Your task to perform on an android device: Is it going to rain this weekend? Image 0: 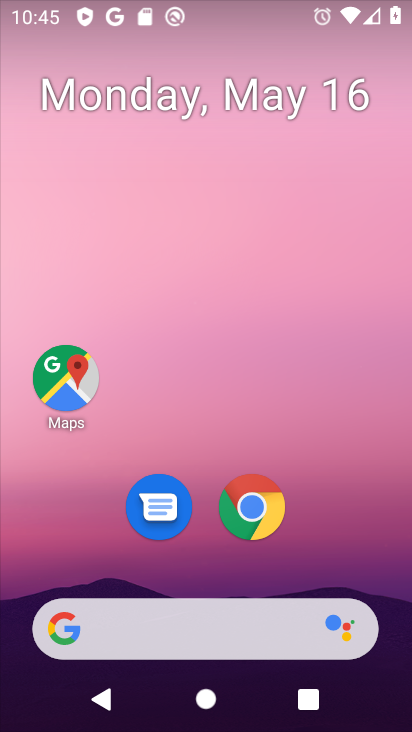
Step 0: drag from (307, 558) to (259, 104)
Your task to perform on an android device: Is it going to rain this weekend? Image 1: 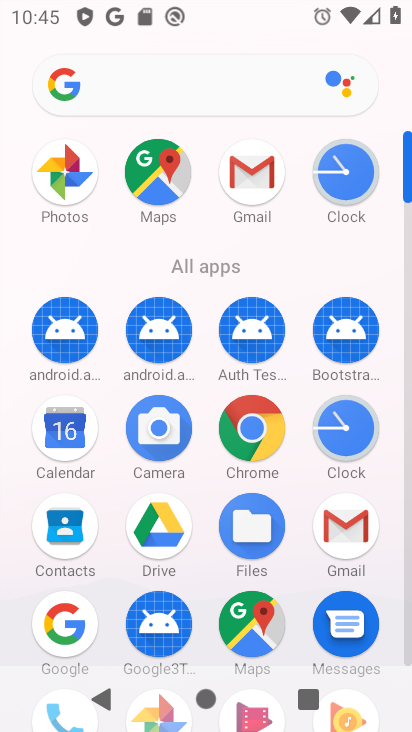
Step 1: drag from (200, 578) to (144, 243)
Your task to perform on an android device: Is it going to rain this weekend? Image 2: 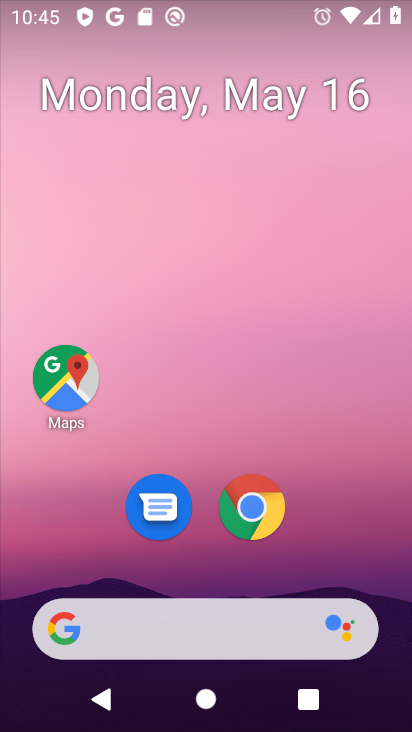
Step 2: drag from (288, 416) to (121, 7)
Your task to perform on an android device: Is it going to rain this weekend? Image 3: 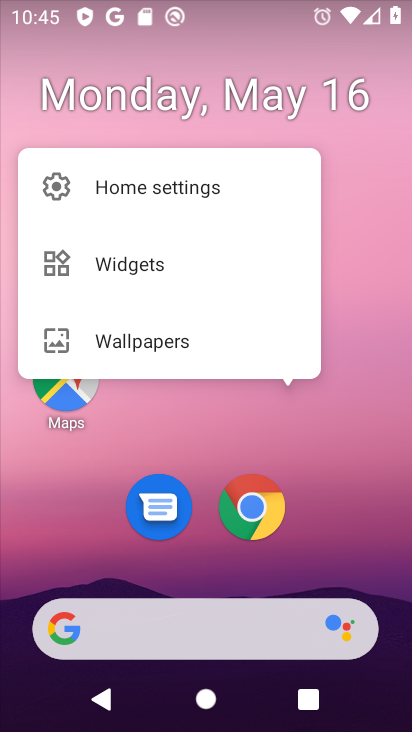
Step 3: click (183, 603)
Your task to perform on an android device: Is it going to rain this weekend? Image 4: 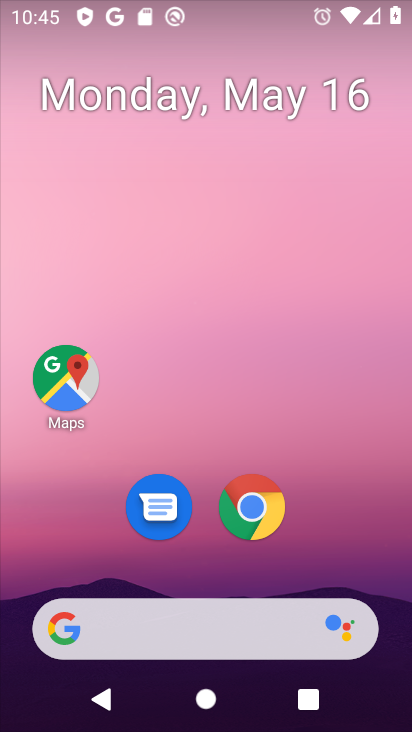
Step 4: click (156, 646)
Your task to perform on an android device: Is it going to rain this weekend? Image 5: 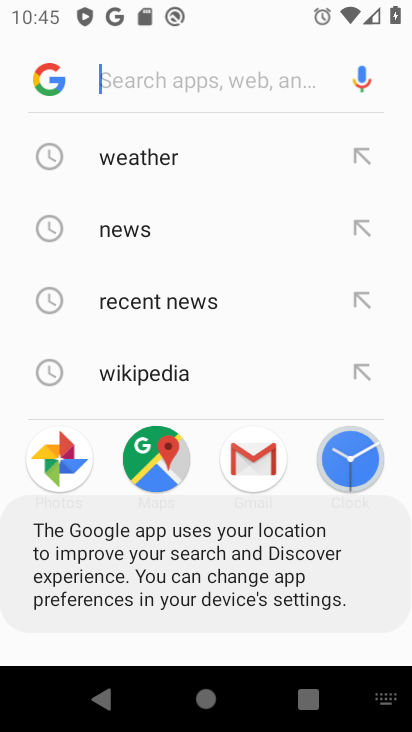
Step 5: click (186, 155)
Your task to perform on an android device: Is it going to rain this weekend? Image 6: 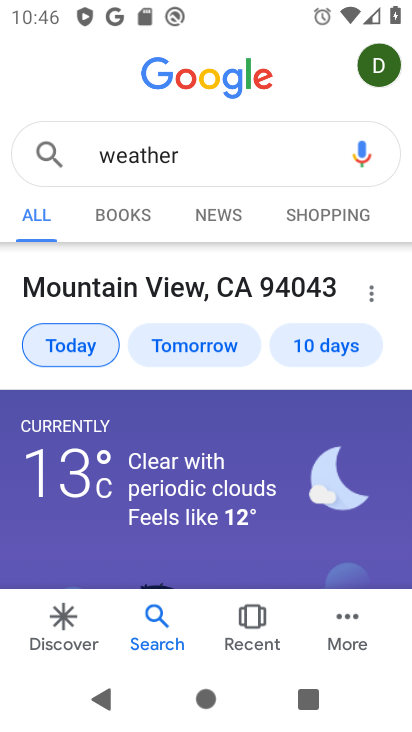
Step 6: click (309, 341)
Your task to perform on an android device: Is it going to rain this weekend? Image 7: 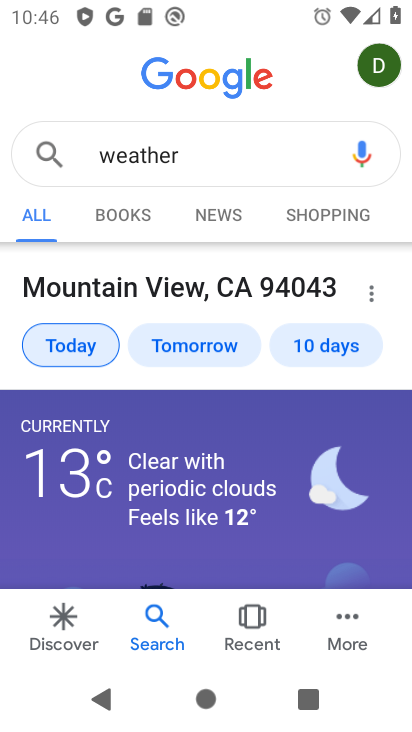
Step 7: click (309, 341)
Your task to perform on an android device: Is it going to rain this weekend? Image 8: 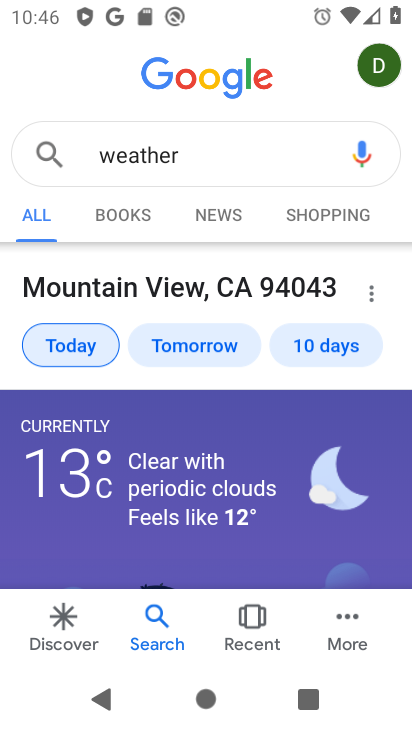
Step 8: click (309, 341)
Your task to perform on an android device: Is it going to rain this weekend? Image 9: 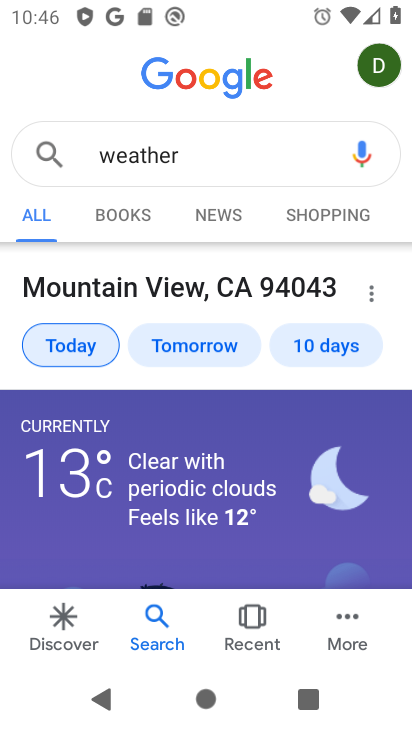
Step 9: click (309, 341)
Your task to perform on an android device: Is it going to rain this weekend? Image 10: 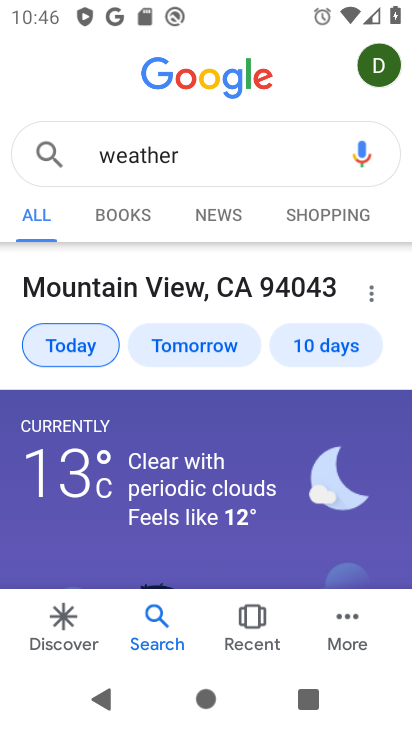
Step 10: click (309, 341)
Your task to perform on an android device: Is it going to rain this weekend? Image 11: 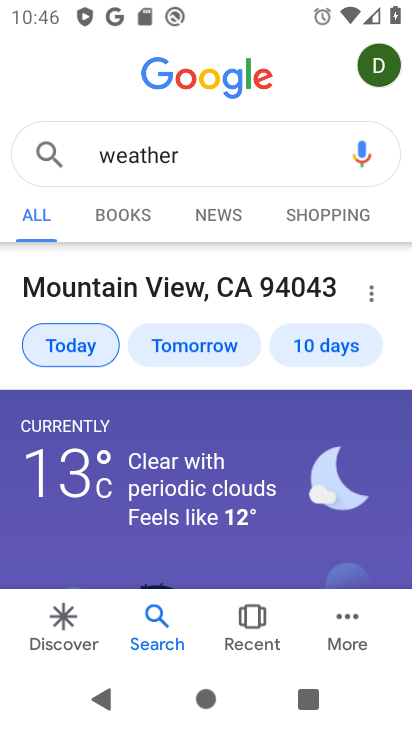
Step 11: click (309, 341)
Your task to perform on an android device: Is it going to rain this weekend? Image 12: 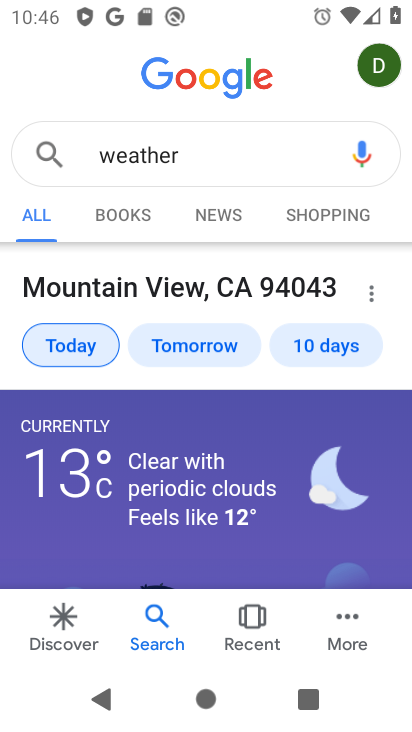
Step 12: click (309, 341)
Your task to perform on an android device: Is it going to rain this weekend? Image 13: 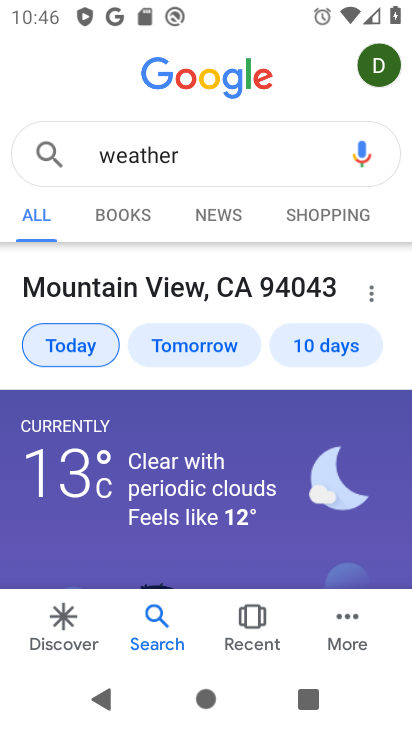
Step 13: click (309, 341)
Your task to perform on an android device: Is it going to rain this weekend? Image 14: 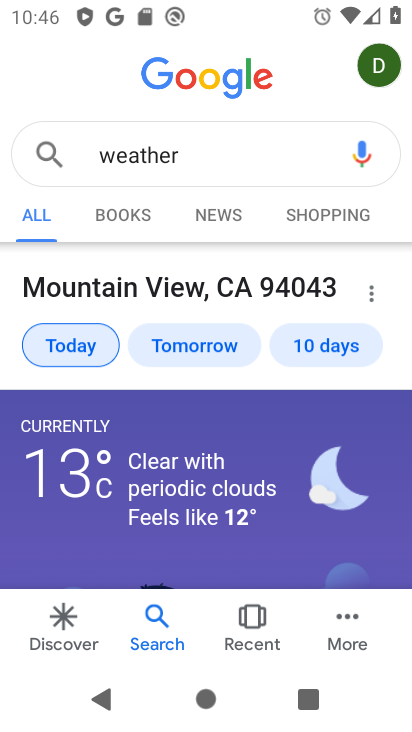
Step 14: click (309, 341)
Your task to perform on an android device: Is it going to rain this weekend? Image 15: 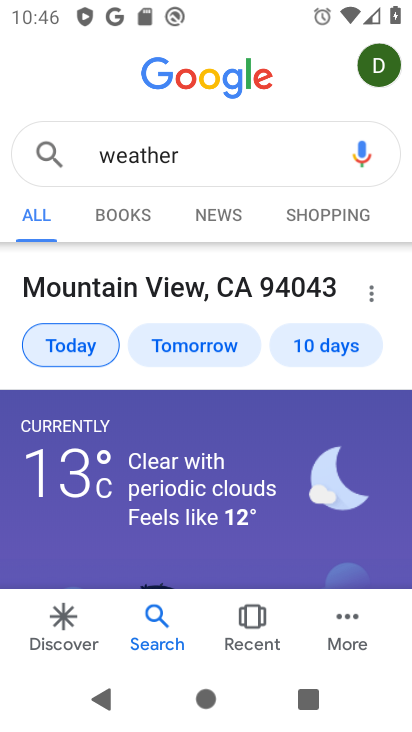
Step 15: click (309, 341)
Your task to perform on an android device: Is it going to rain this weekend? Image 16: 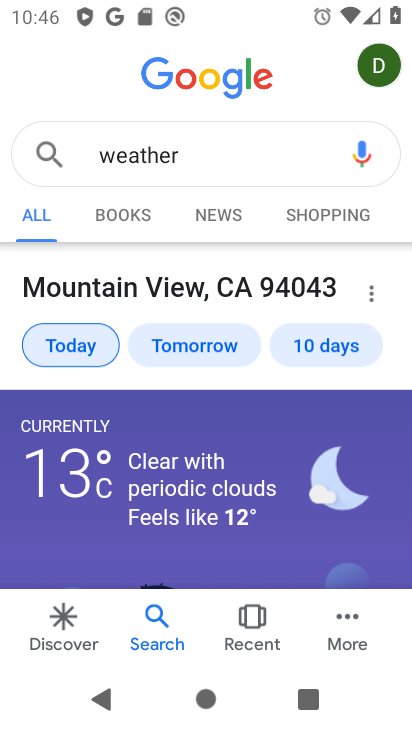
Step 16: click (309, 341)
Your task to perform on an android device: Is it going to rain this weekend? Image 17: 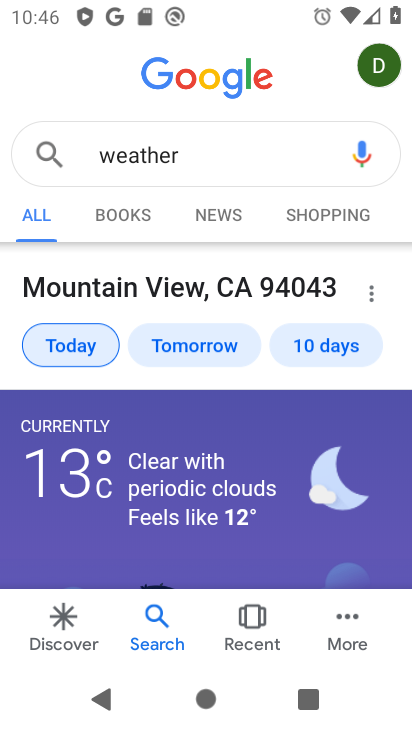
Step 17: click (309, 341)
Your task to perform on an android device: Is it going to rain this weekend? Image 18: 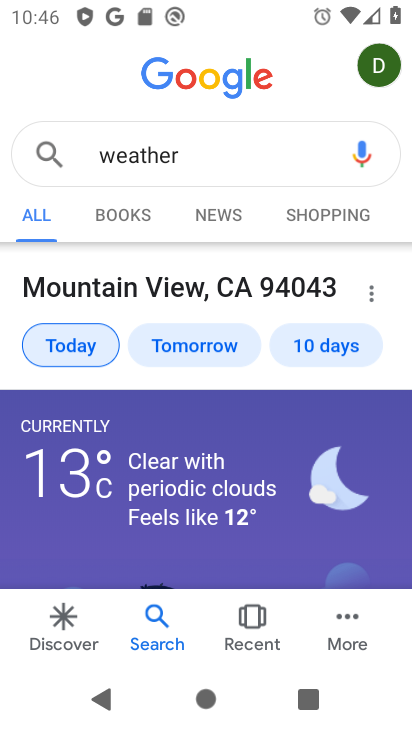
Step 18: click (309, 341)
Your task to perform on an android device: Is it going to rain this weekend? Image 19: 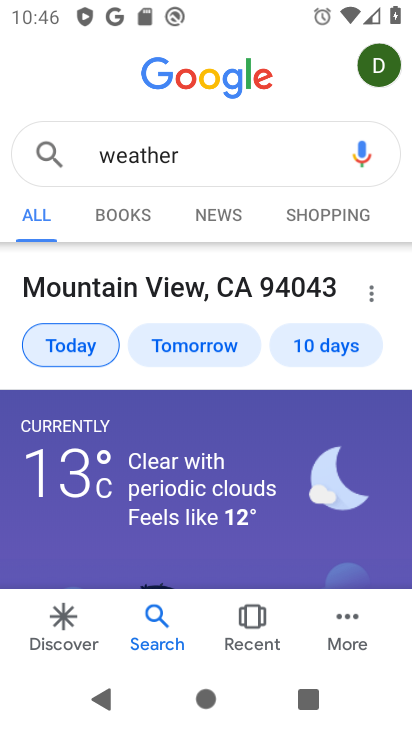
Step 19: click (309, 341)
Your task to perform on an android device: Is it going to rain this weekend? Image 20: 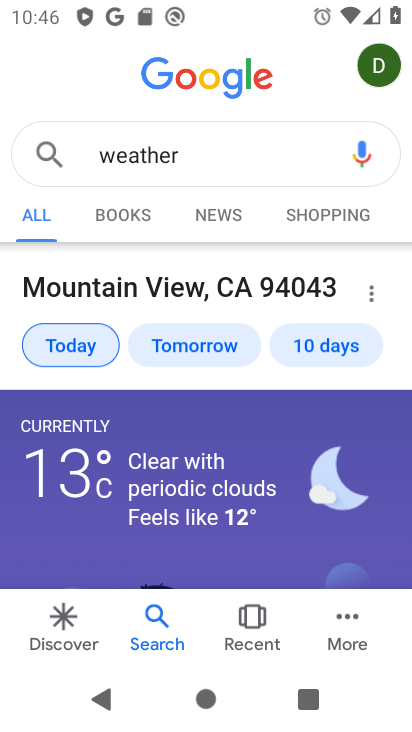
Step 20: drag from (277, 520) to (184, 274)
Your task to perform on an android device: Is it going to rain this weekend? Image 21: 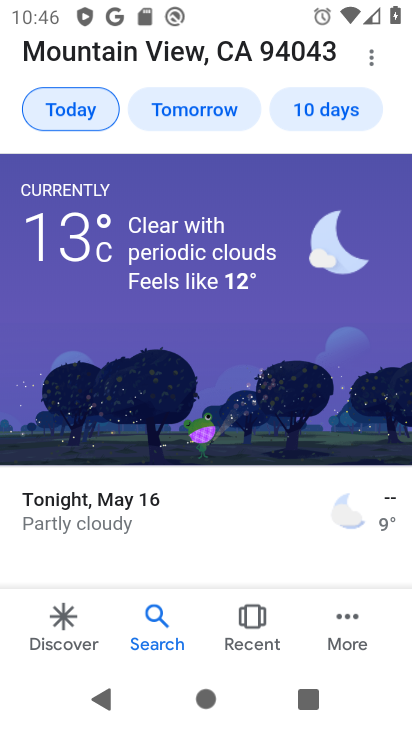
Step 21: click (321, 118)
Your task to perform on an android device: Is it going to rain this weekend? Image 22: 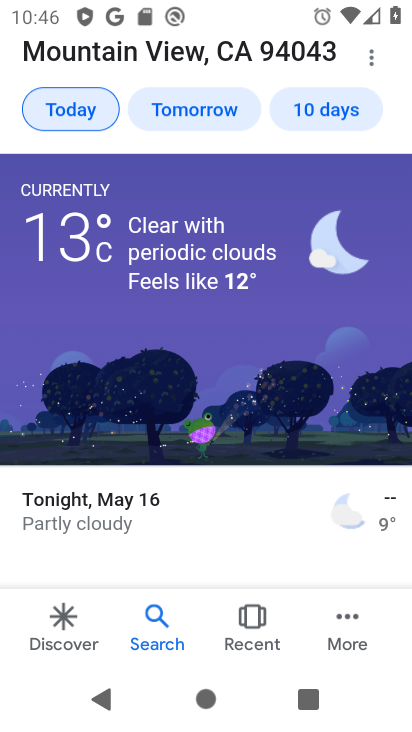
Step 22: click (321, 118)
Your task to perform on an android device: Is it going to rain this weekend? Image 23: 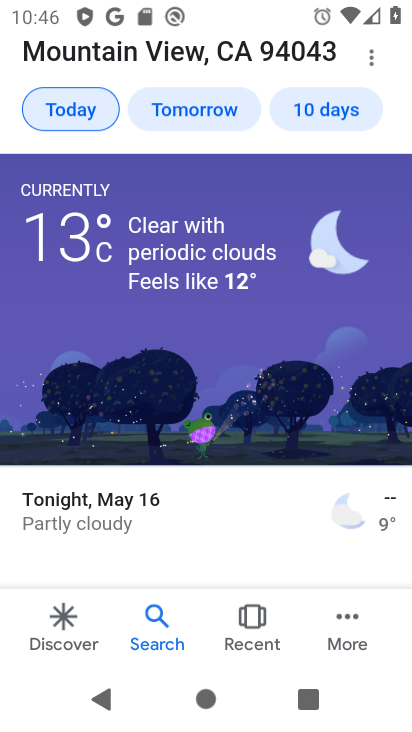
Step 23: click (321, 118)
Your task to perform on an android device: Is it going to rain this weekend? Image 24: 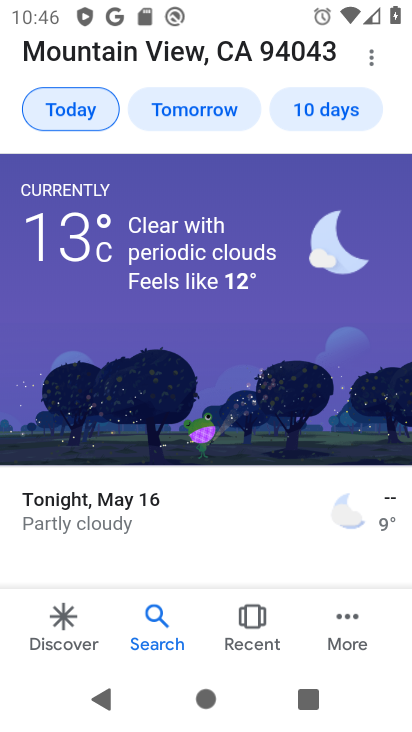
Step 24: click (321, 118)
Your task to perform on an android device: Is it going to rain this weekend? Image 25: 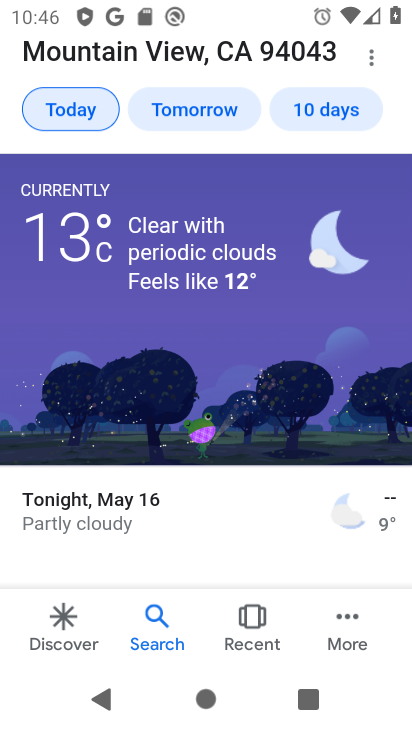
Step 25: click (321, 118)
Your task to perform on an android device: Is it going to rain this weekend? Image 26: 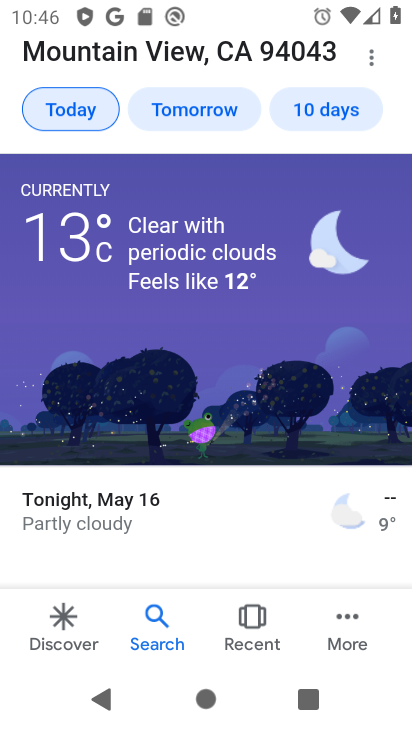
Step 26: click (321, 118)
Your task to perform on an android device: Is it going to rain this weekend? Image 27: 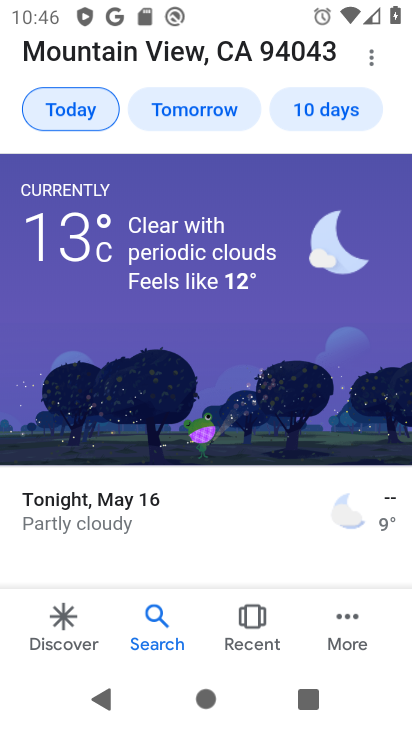
Step 27: click (321, 118)
Your task to perform on an android device: Is it going to rain this weekend? Image 28: 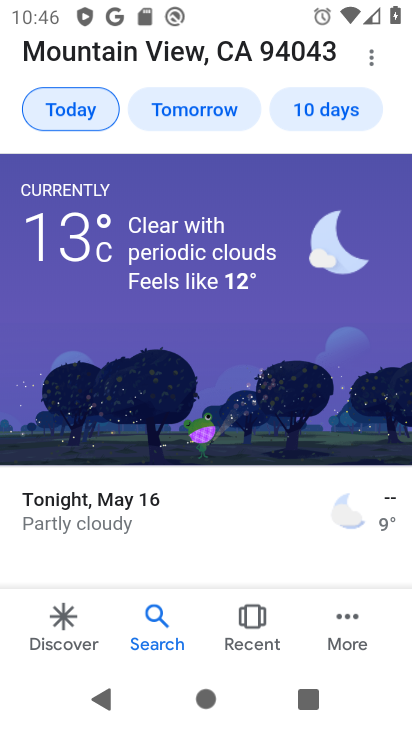
Step 28: click (321, 118)
Your task to perform on an android device: Is it going to rain this weekend? Image 29: 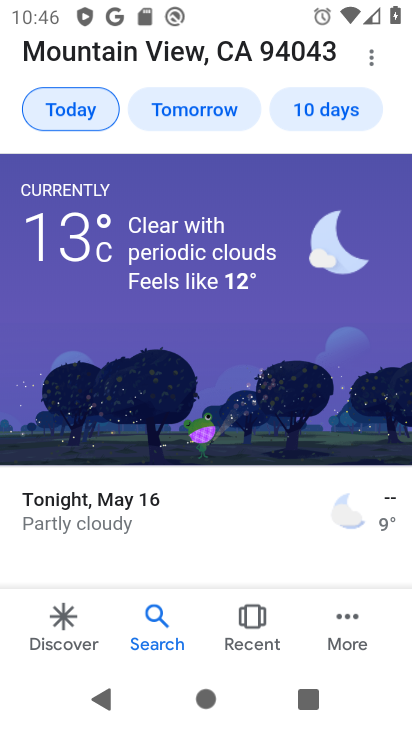
Step 29: task complete